Your task to perform on an android device: Set the phone to "Do not disturb". Image 0: 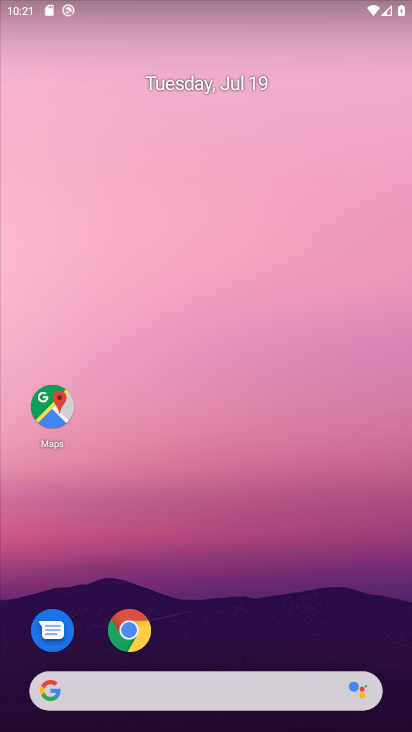
Step 0: drag from (192, 632) to (180, 204)
Your task to perform on an android device: Set the phone to "Do not disturb". Image 1: 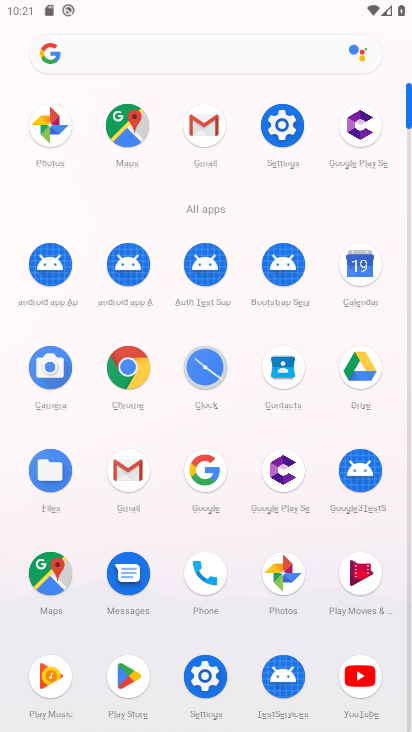
Step 1: click (258, 125)
Your task to perform on an android device: Set the phone to "Do not disturb". Image 2: 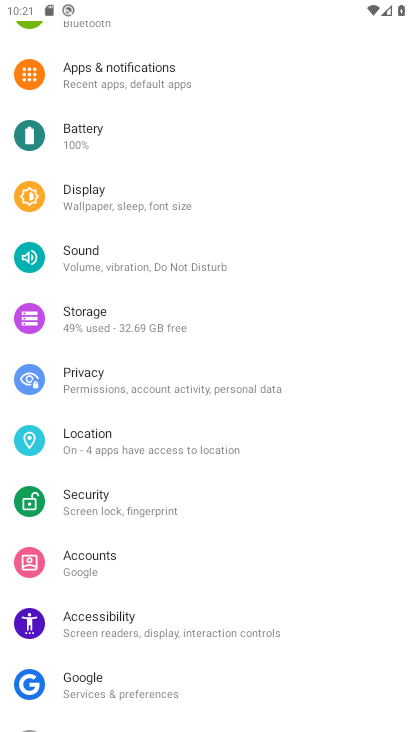
Step 2: click (142, 270)
Your task to perform on an android device: Set the phone to "Do not disturb". Image 3: 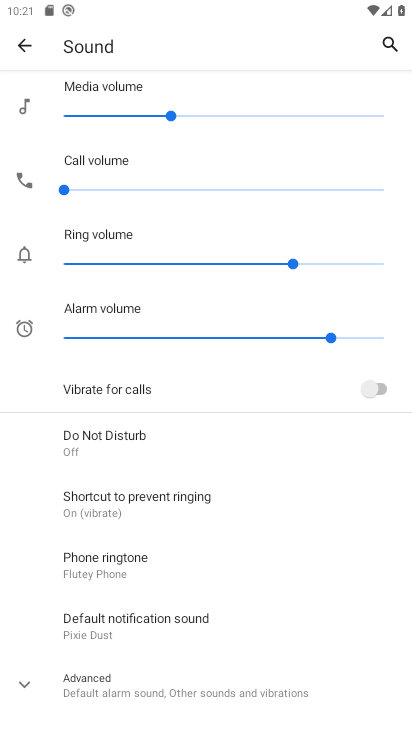
Step 3: click (139, 452)
Your task to perform on an android device: Set the phone to "Do not disturb". Image 4: 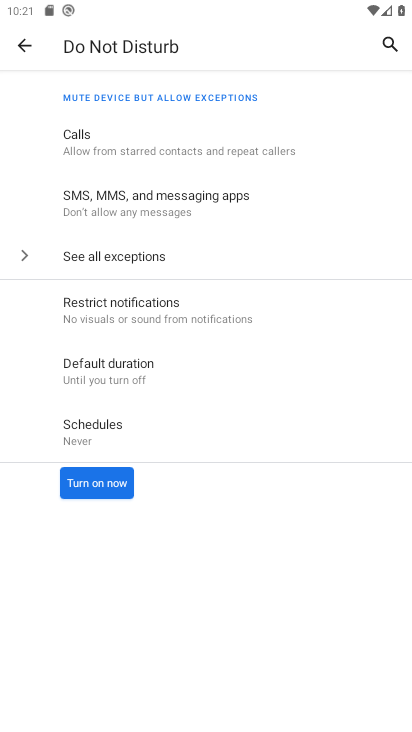
Step 4: click (117, 477)
Your task to perform on an android device: Set the phone to "Do not disturb". Image 5: 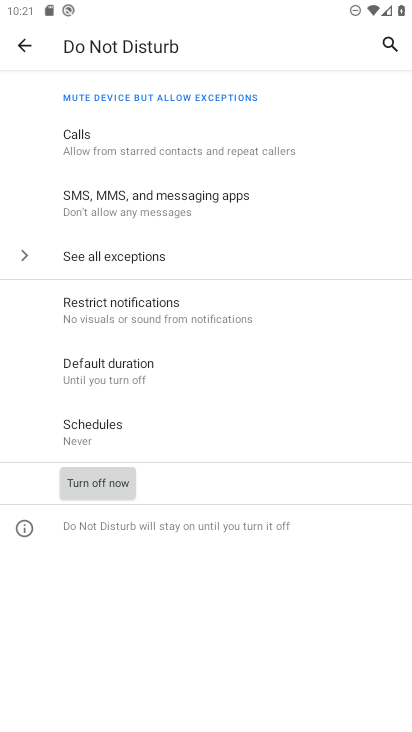
Step 5: task complete